Your task to perform on an android device: allow notifications from all sites in the chrome app Image 0: 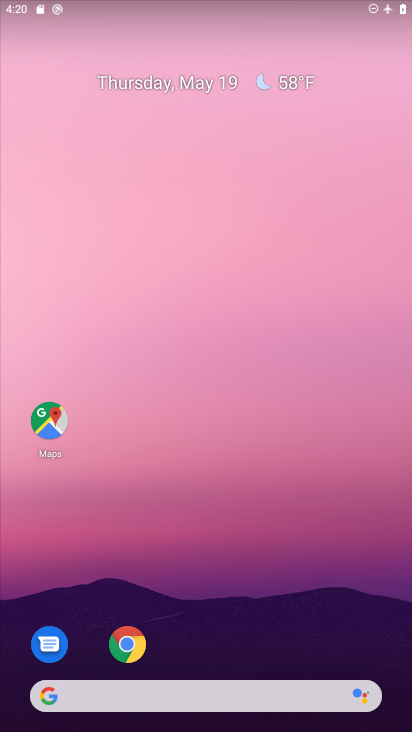
Step 0: drag from (299, 541) to (276, 31)
Your task to perform on an android device: allow notifications from all sites in the chrome app Image 1: 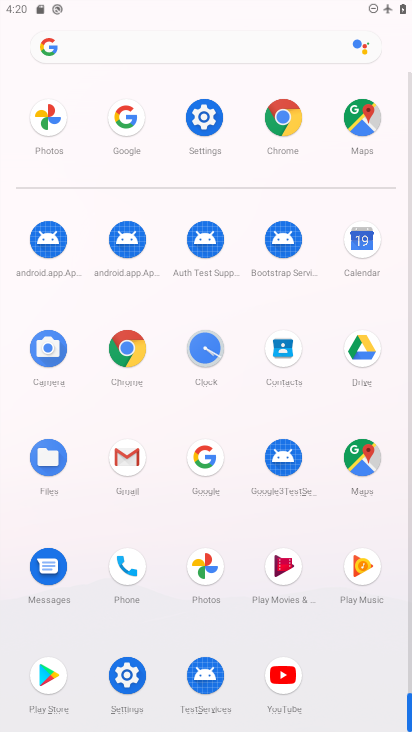
Step 1: drag from (17, 501) to (15, 190)
Your task to perform on an android device: allow notifications from all sites in the chrome app Image 2: 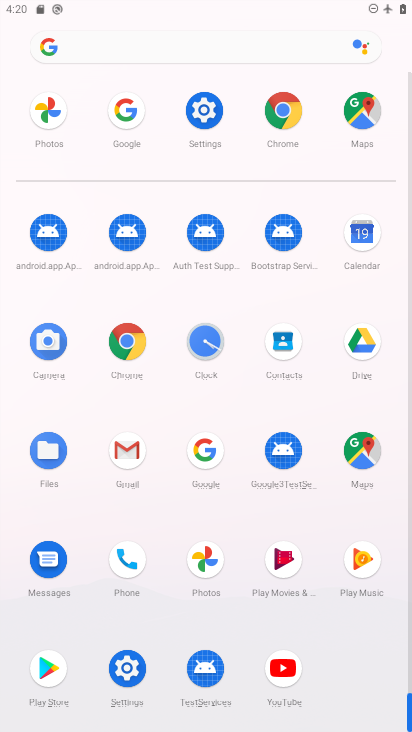
Step 2: click (122, 328)
Your task to perform on an android device: allow notifications from all sites in the chrome app Image 3: 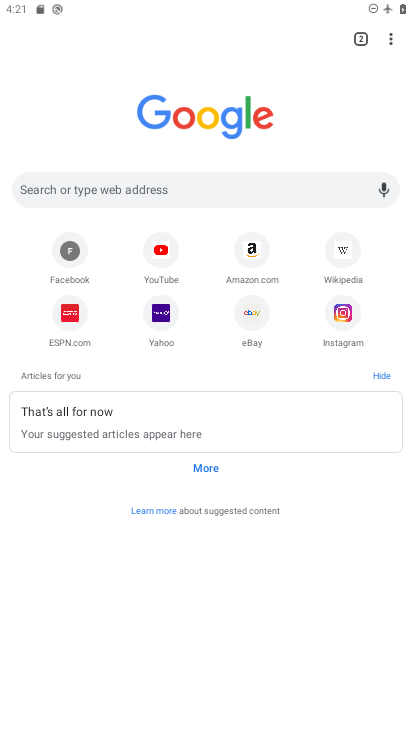
Step 3: drag from (389, 37) to (248, 330)
Your task to perform on an android device: allow notifications from all sites in the chrome app Image 4: 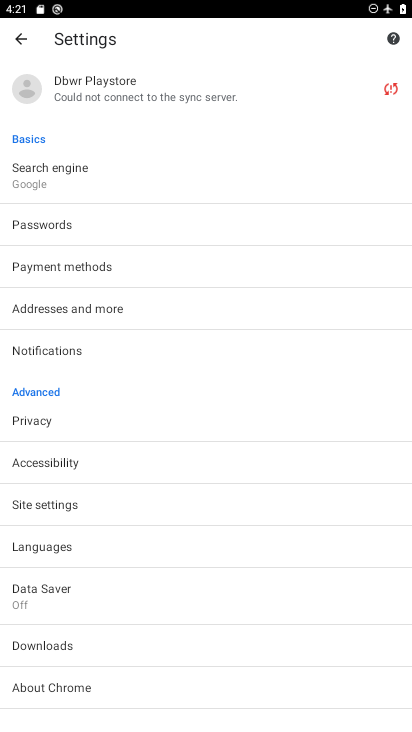
Step 4: drag from (207, 563) to (256, 114)
Your task to perform on an android device: allow notifications from all sites in the chrome app Image 5: 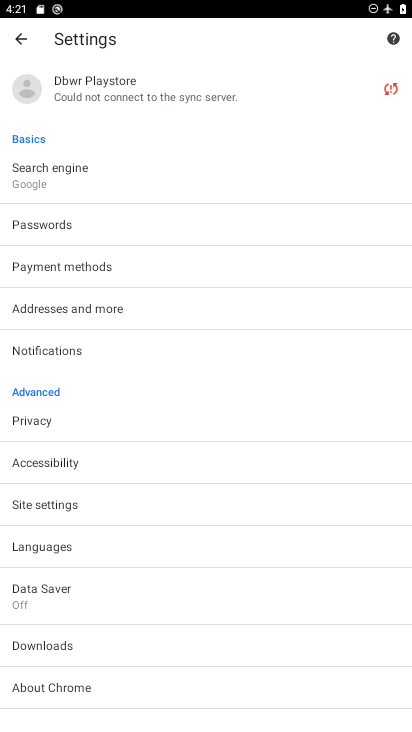
Step 5: drag from (183, 485) to (213, 145)
Your task to perform on an android device: allow notifications from all sites in the chrome app Image 6: 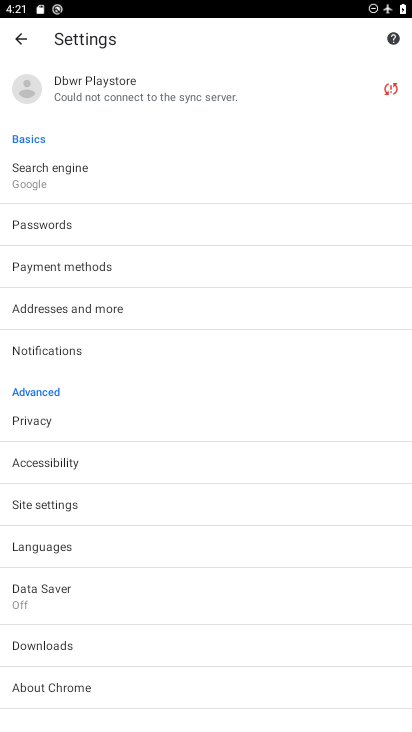
Step 6: drag from (174, 585) to (215, 142)
Your task to perform on an android device: allow notifications from all sites in the chrome app Image 7: 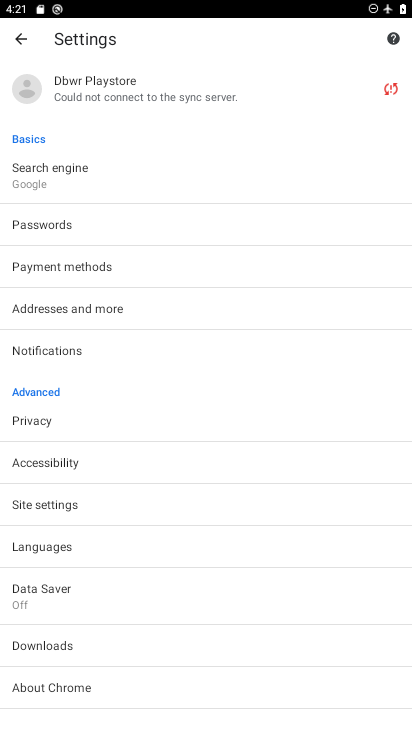
Step 7: click (88, 496)
Your task to perform on an android device: allow notifications from all sites in the chrome app Image 8: 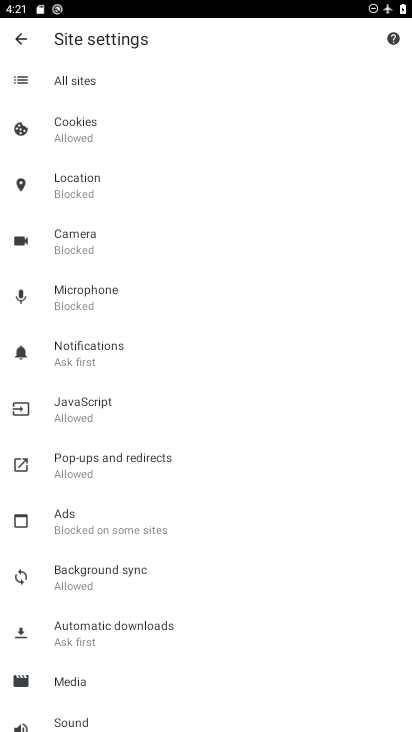
Step 8: click (77, 357)
Your task to perform on an android device: allow notifications from all sites in the chrome app Image 9: 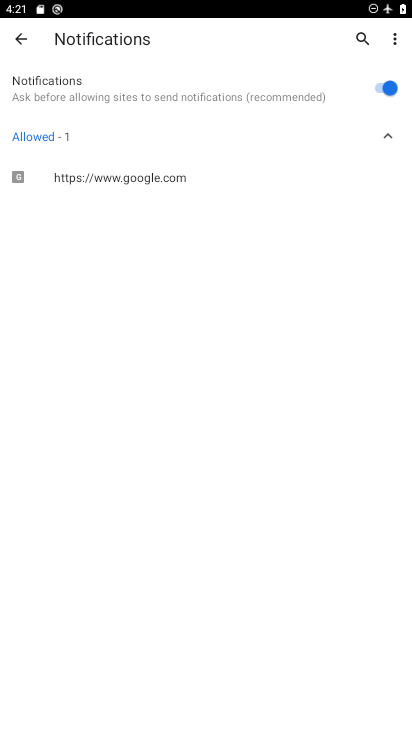
Step 9: task complete